Your task to perform on an android device: turn on notifications settings in the gmail app Image 0: 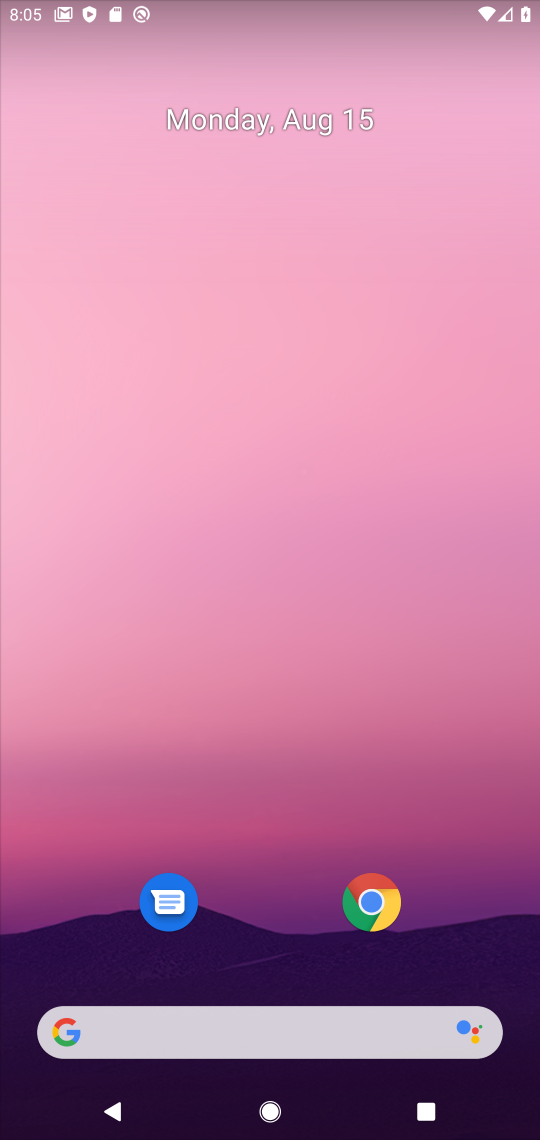
Step 0: drag from (490, 944) to (359, 11)
Your task to perform on an android device: turn on notifications settings in the gmail app Image 1: 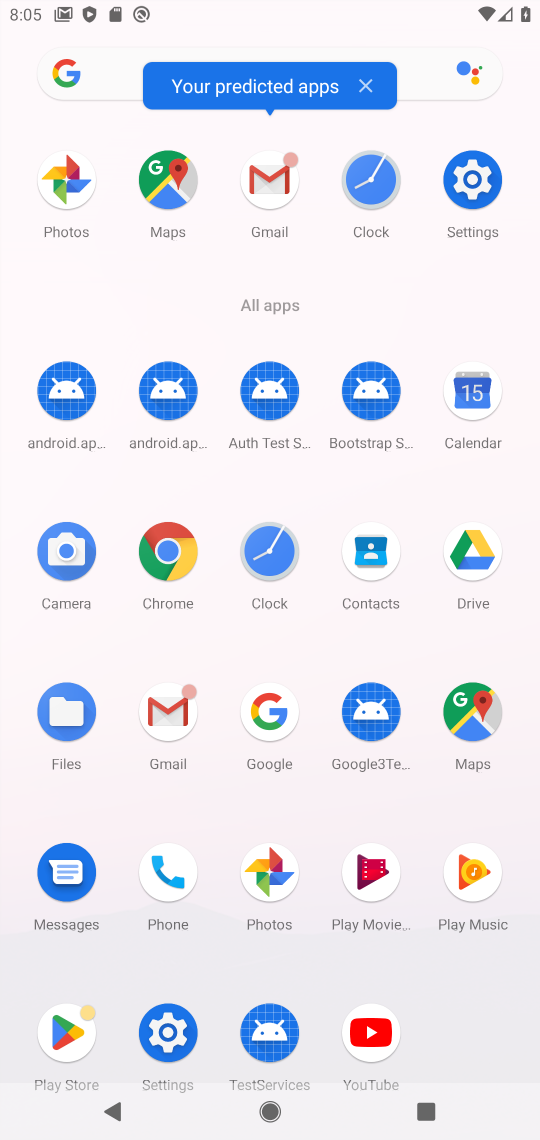
Step 1: click (154, 701)
Your task to perform on an android device: turn on notifications settings in the gmail app Image 2: 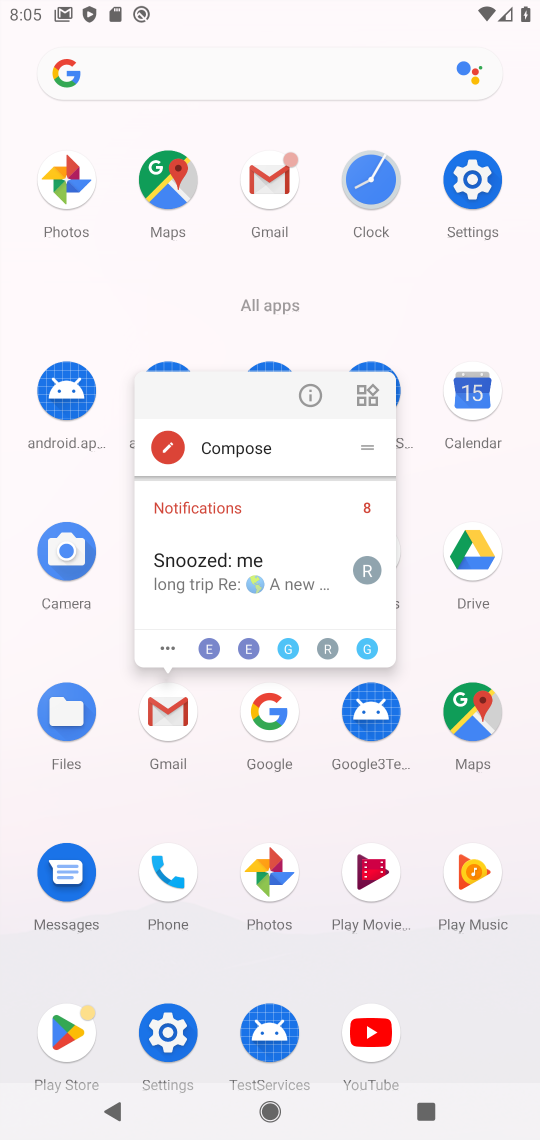
Step 2: click (172, 724)
Your task to perform on an android device: turn on notifications settings in the gmail app Image 3: 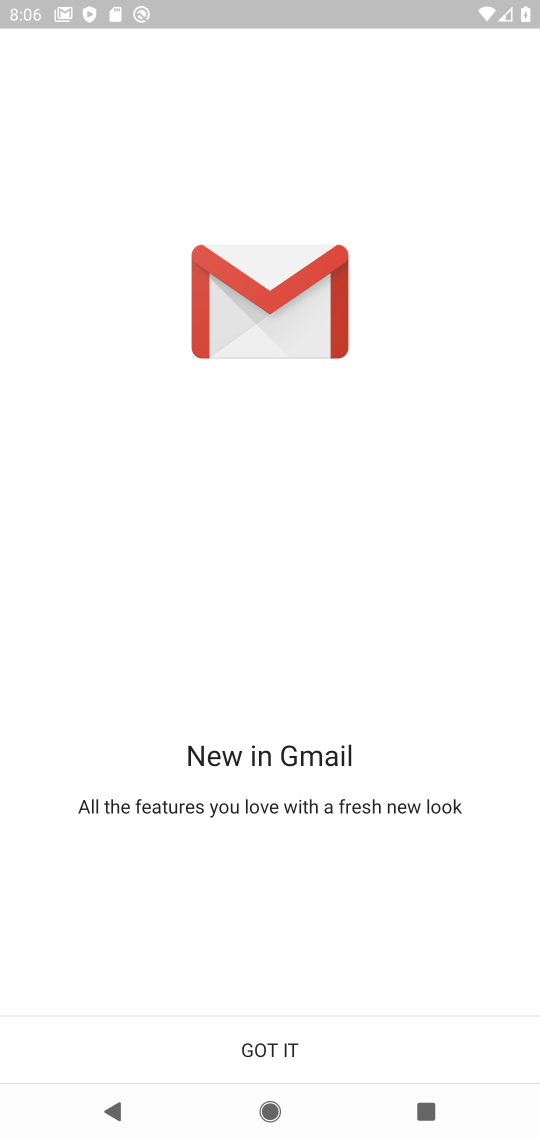
Step 3: click (220, 1054)
Your task to perform on an android device: turn on notifications settings in the gmail app Image 4: 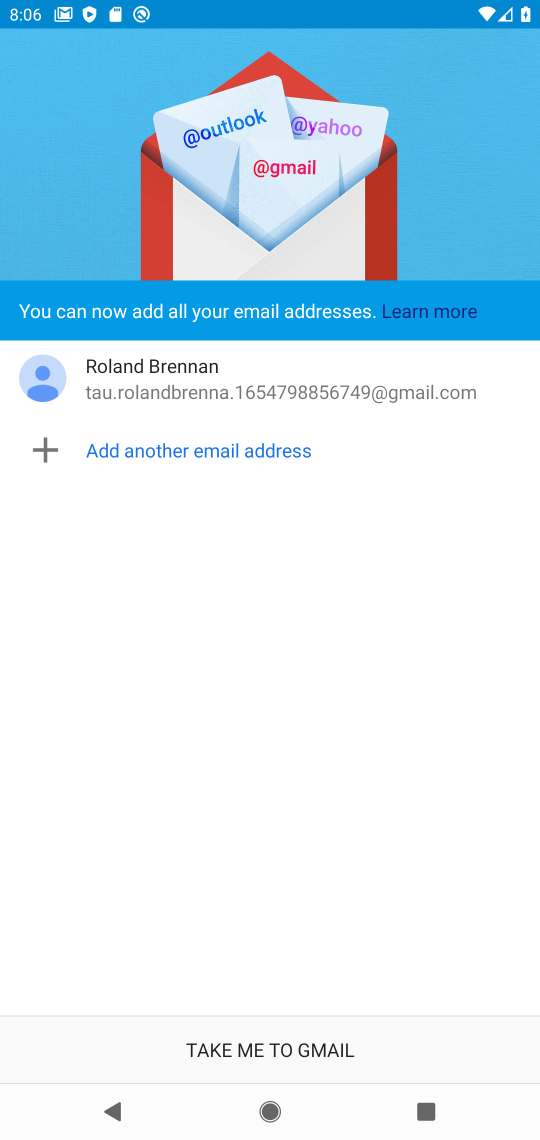
Step 4: click (236, 1050)
Your task to perform on an android device: turn on notifications settings in the gmail app Image 5: 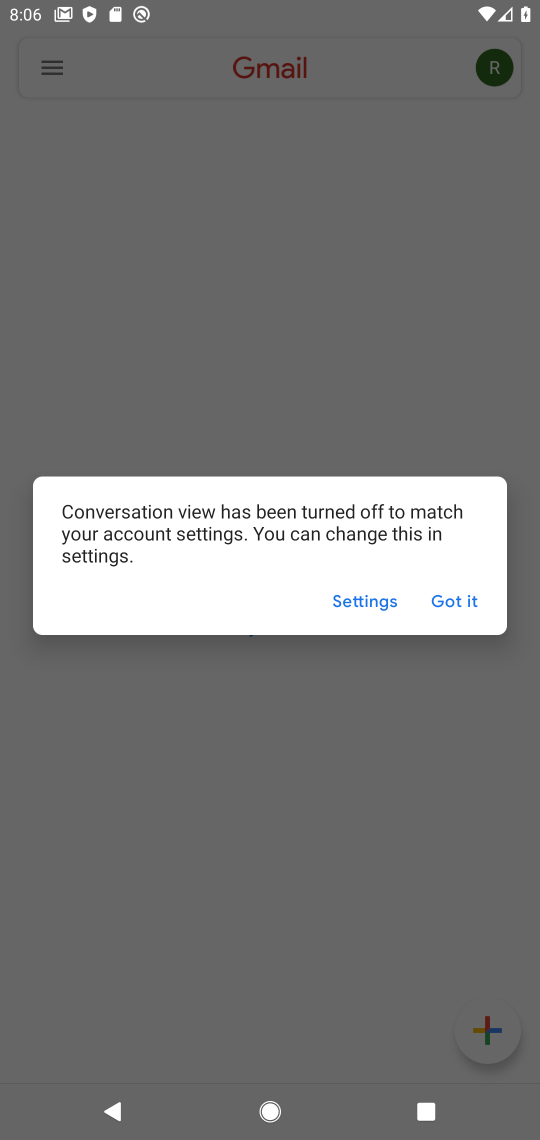
Step 5: click (450, 592)
Your task to perform on an android device: turn on notifications settings in the gmail app Image 6: 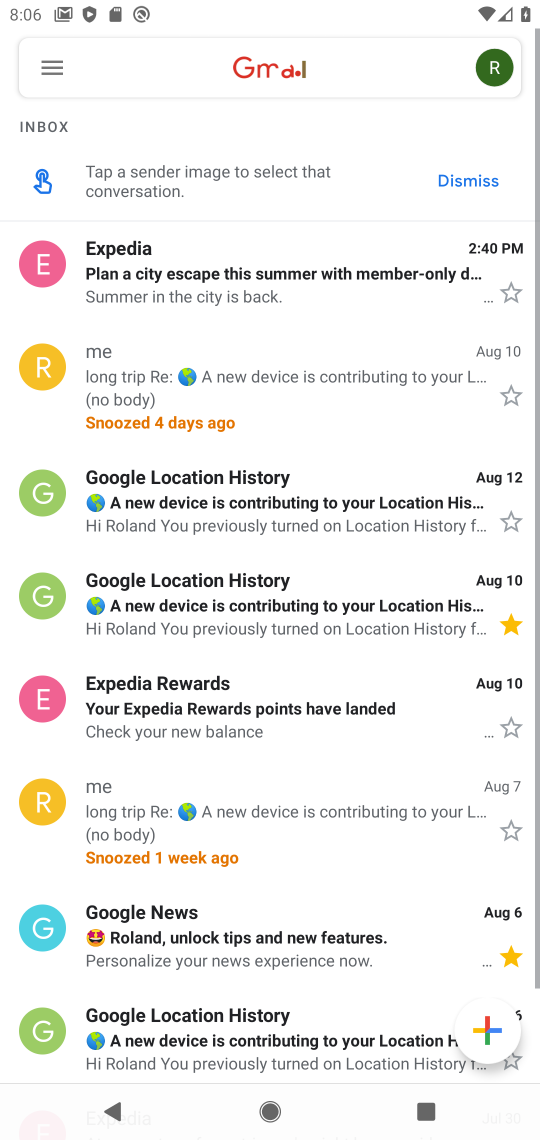
Step 6: click (48, 63)
Your task to perform on an android device: turn on notifications settings in the gmail app Image 7: 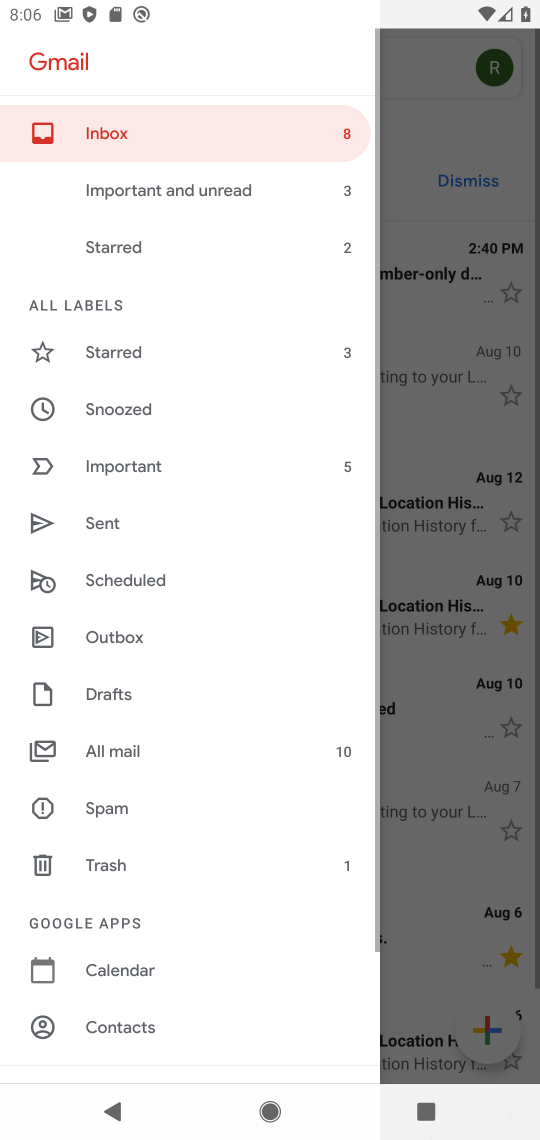
Step 7: click (118, 1051)
Your task to perform on an android device: turn on notifications settings in the gmail app Image 8: 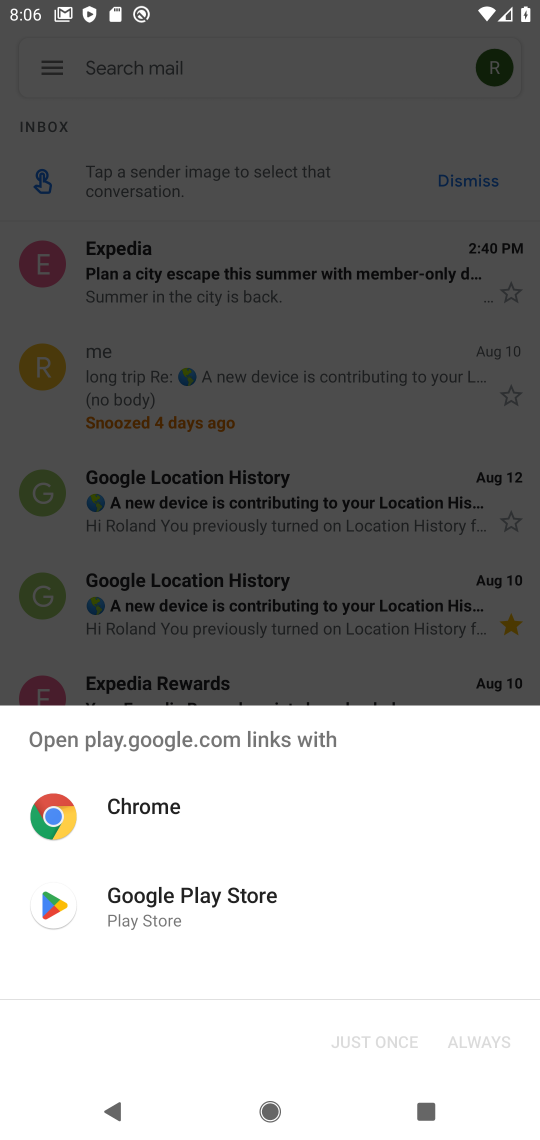
Step 8: press back button
Your task to perform on an android device: turn on notifications settings in the gmail app Image 9: 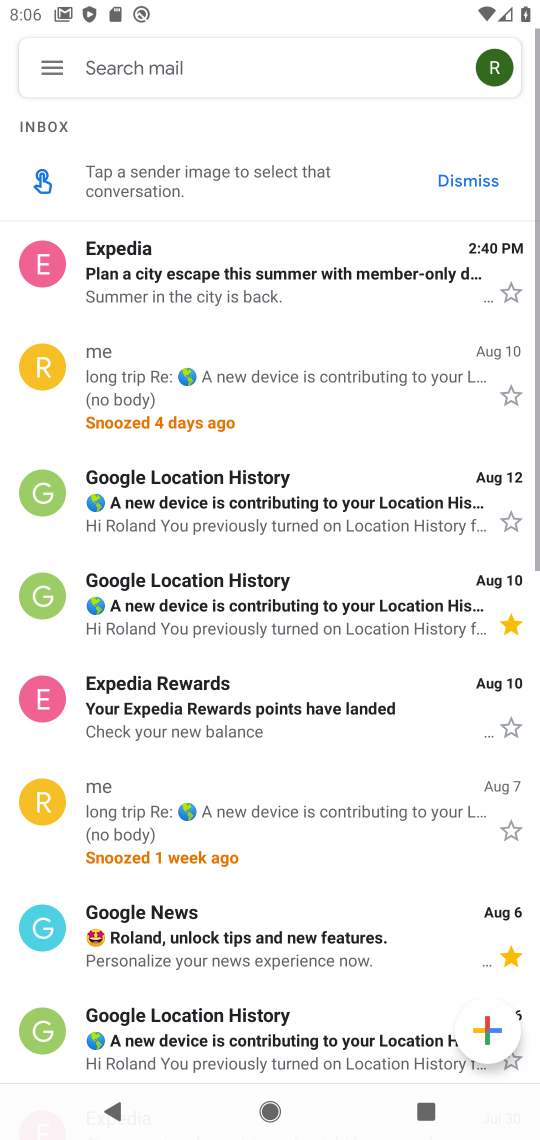
Step 9: click (53, 72)
Your task to perform on an android device: turn on notifications settings in the gmail app Image 10: 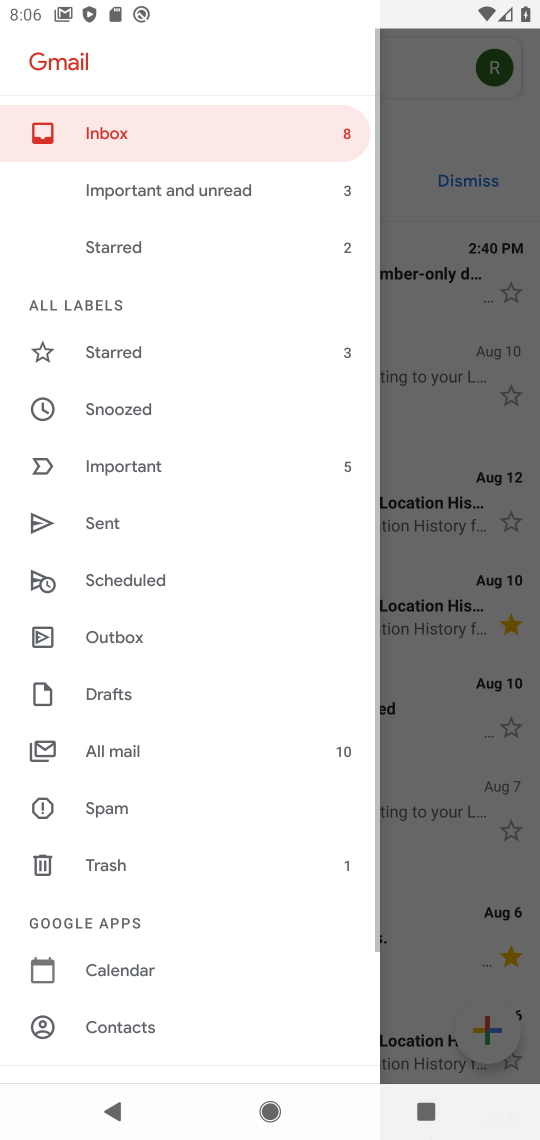
Step 10: drag from (131, 1004) to (169, 50)
Your task to perform on an android device: turn on notifications settings in the gmail app Image 11: 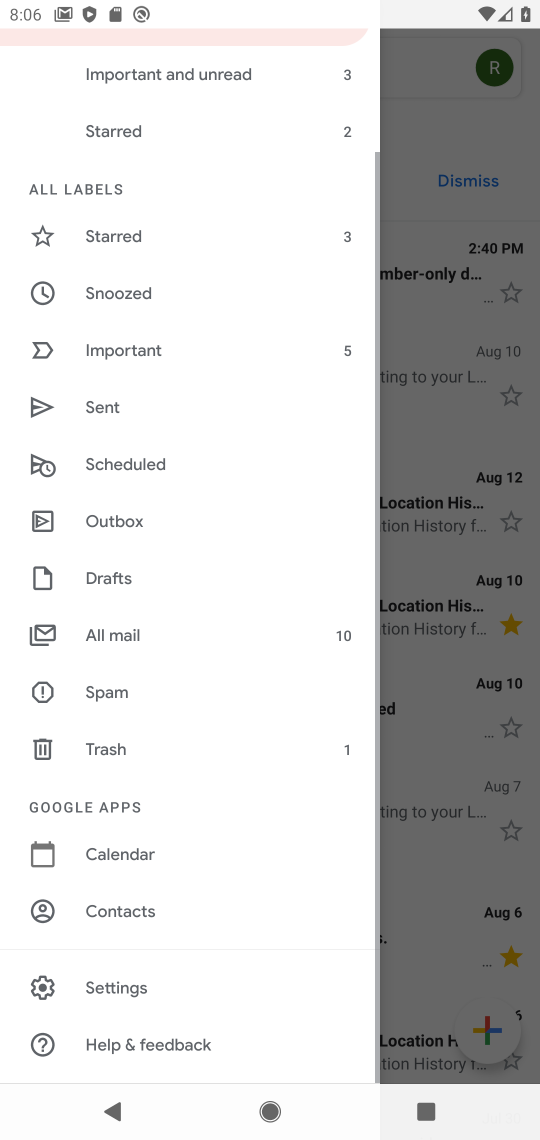
Step 11: click (139, 982)
Your task to perform on an android device: turn on notifications settings in the gmail app Image 12: 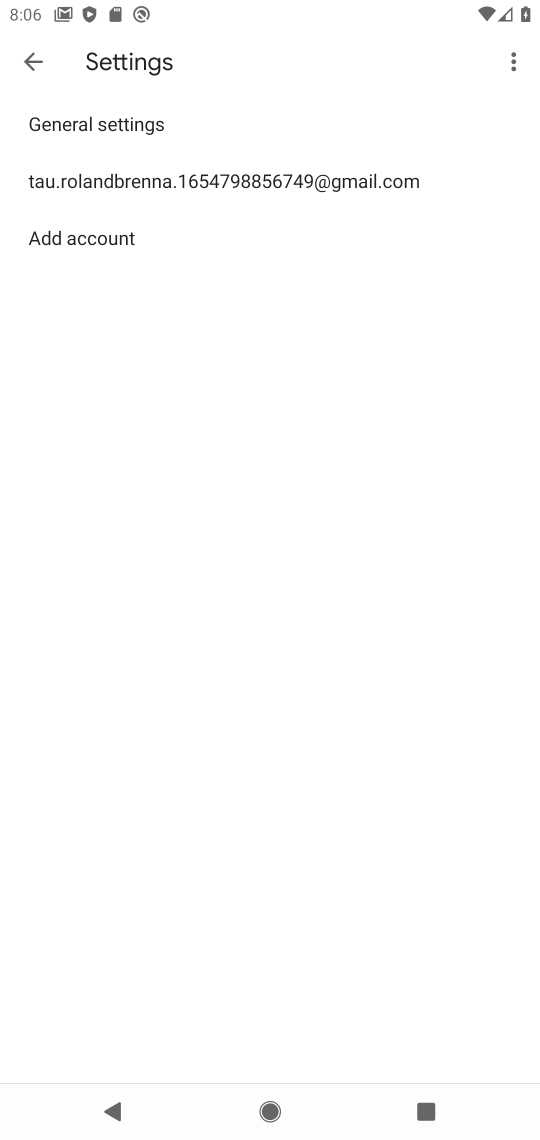
Step 12: click (176, 172)
Your task to perform on an android device: turn on notifications settings in the gmail app Image 13: 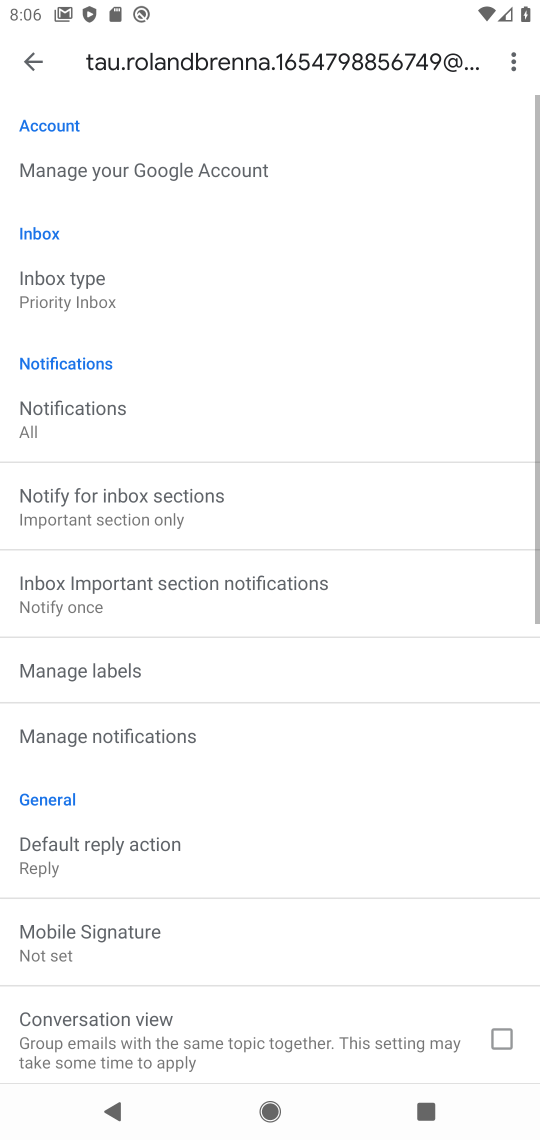
Step 13: click (99, 433)
Your task to perform on an android device: turn on notifications settings in the gmail app Image 14: 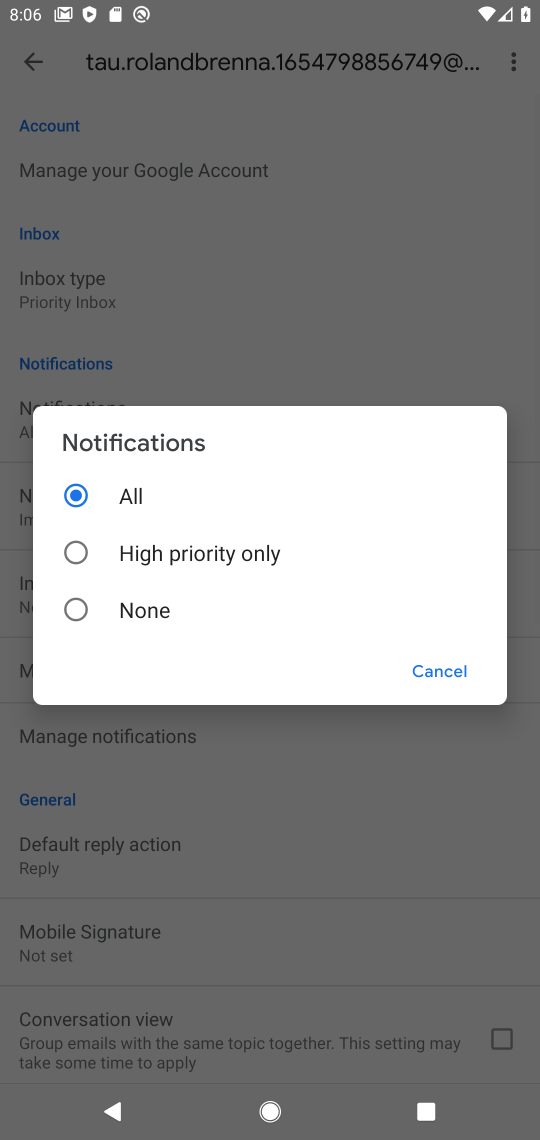
Step 14: click (125, 501)
Your task to perform on an android device: turn on notifications settings in the gmail app Image 15: 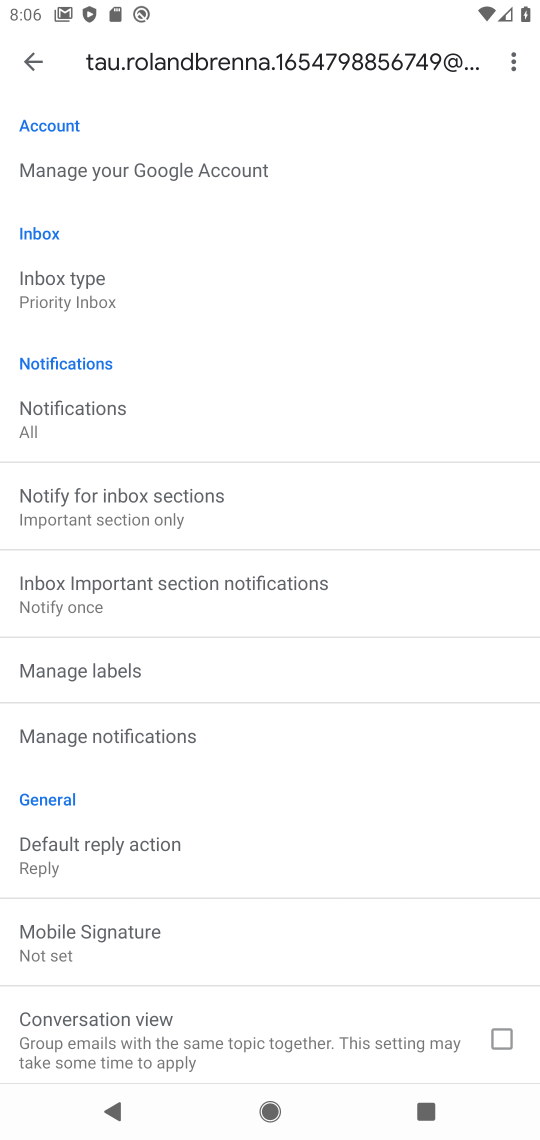
Step 15: task complete